Your task to perform on an android device: Go to Yahoo.com Image 0: 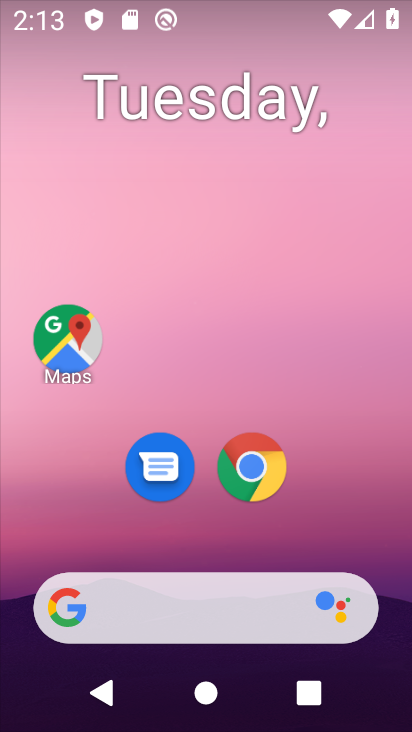
Step 0: drag from (377, 532) to (382, 148)
Your task to perform on an android device: Go to Yahoo.com Image 1: 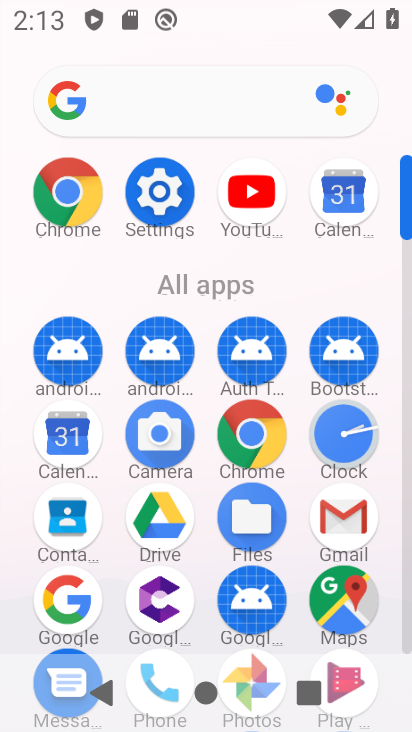
Step 1: click (249, 453)
Your task to perform on an android device: Go to Yahoo.com Image 2: 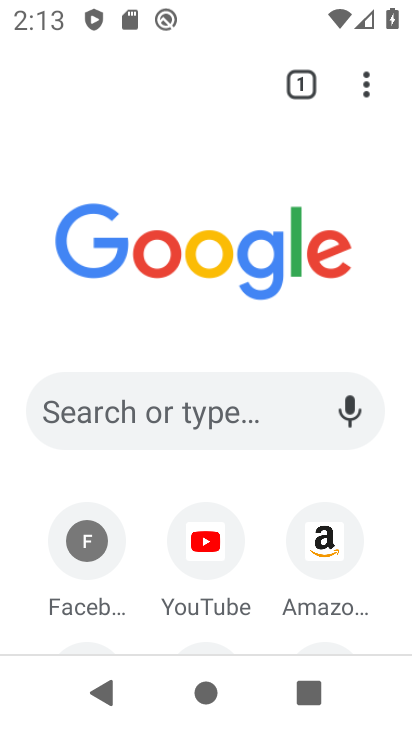
Step 2: click (248, 416)
Your task to perform on an android device: Go to Yahoo.com Image 3: 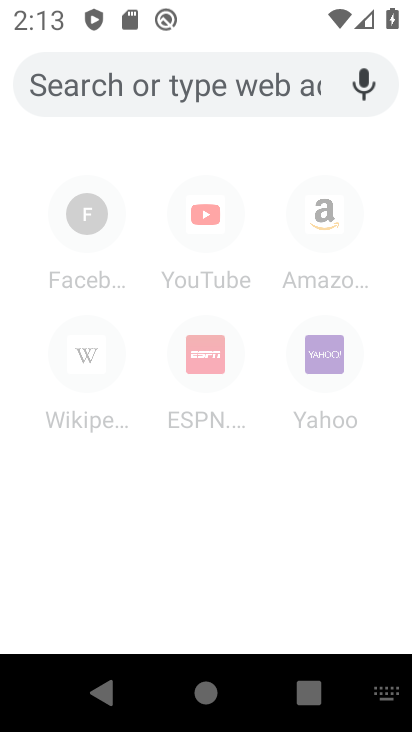
Step 3: type "yahoo.com"
Your task to perform on an android device: Go to Yahoo.com Image 4: 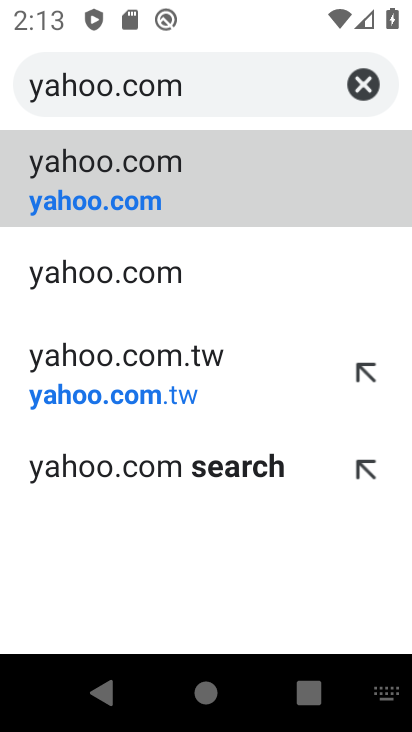
Step 4: click (244, 187)
Your task to perform on an android device: Go to Yahoo.com Image 5: 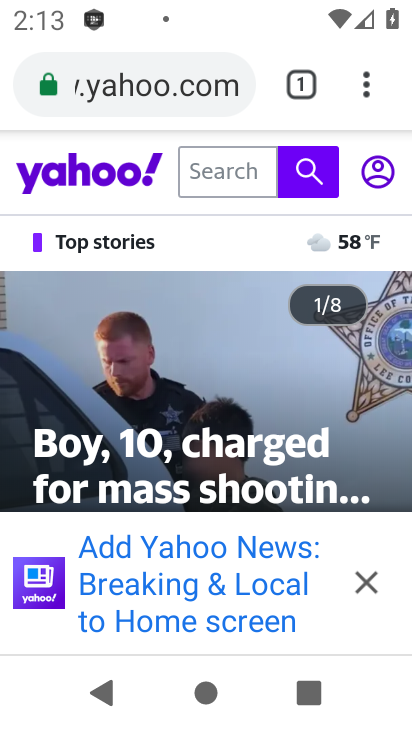
Step 5: task complete